Your task to perform on an android device: find snoozed emails in the gmail app Image 0: 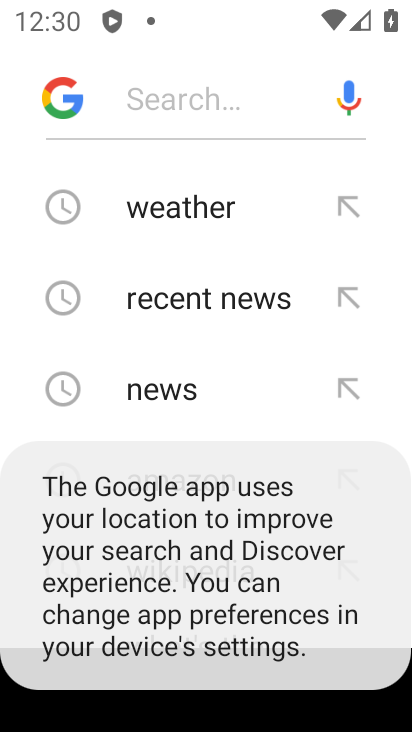
Step 0: press home button
Your task to perform on an android device: find snoozed emails in the gmail app Image 1: 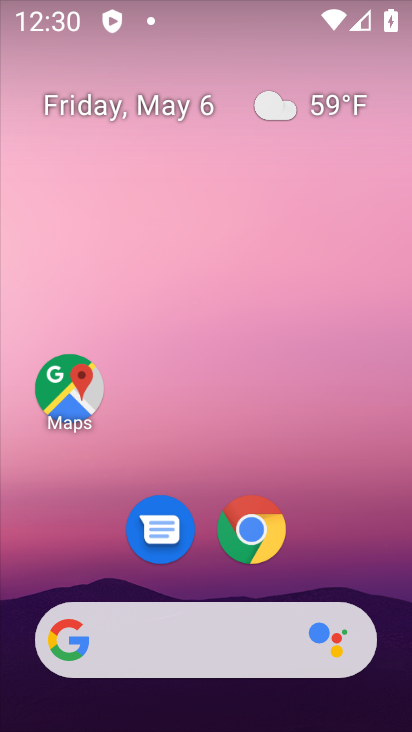
Step 1: press home button
Your task to perform on an android device: find snoozed emails in the gmail app Image 2: 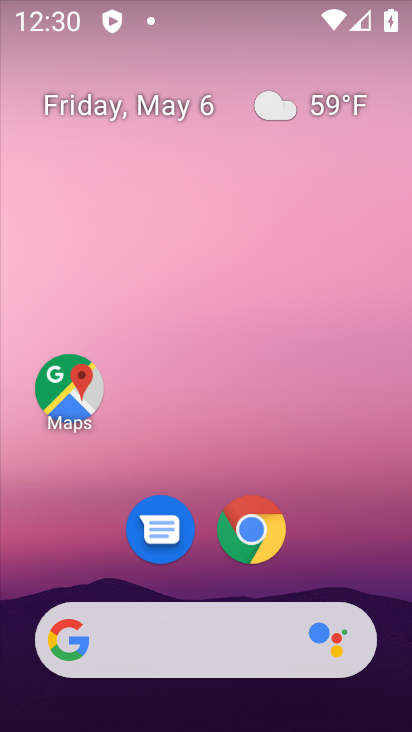
Step 2: drag from (329, 532) to (336, 196)
Your task to perform on an android device: find snoozed emails in the gmail app Image 3: 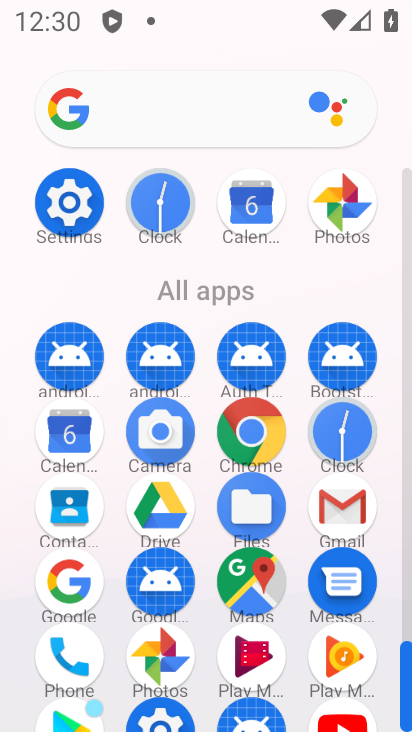
Step 3: click (345, 520)
Your task to perform on an android device: find snoozed emails in the gmail app Image 4: 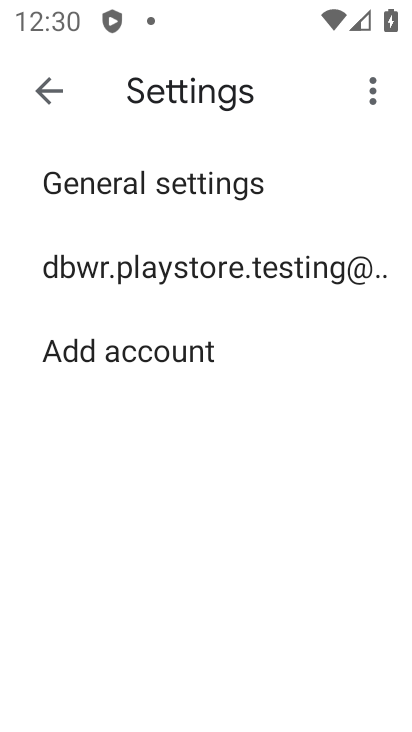
Step 4: click (214, 269)
Your task to perform on an android device: find snoozed emails in the gmail app Image 5: 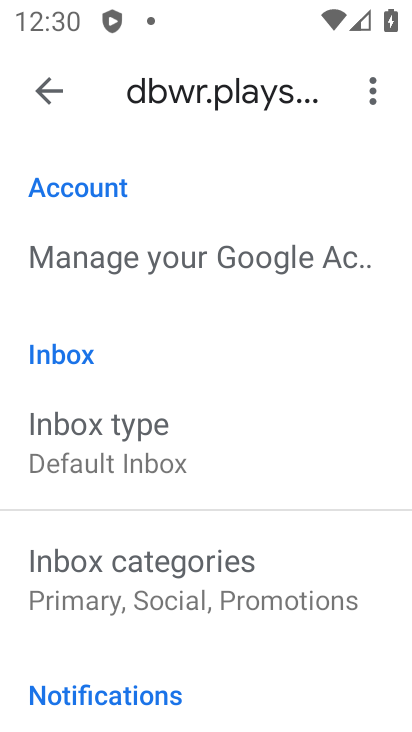
Step 5: drag from (258, 539) to (238, 283)
Your task to perform on an android device: find snoozed emails in the gmail app Image 6: 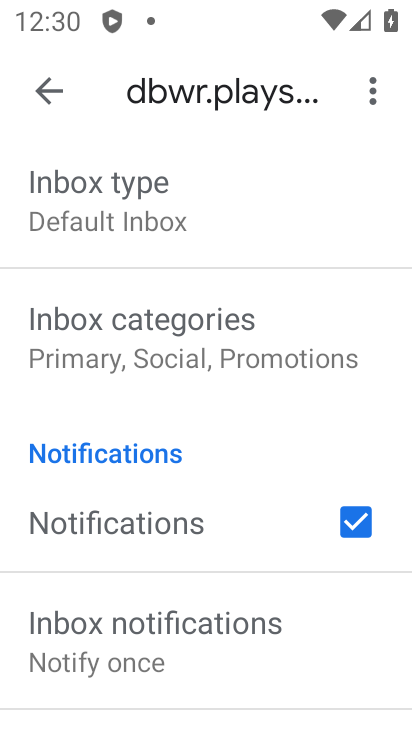
Step 6: click (54, 78)
Your task to perform on an android device: find snoozed emails in the gmail app Image 7: 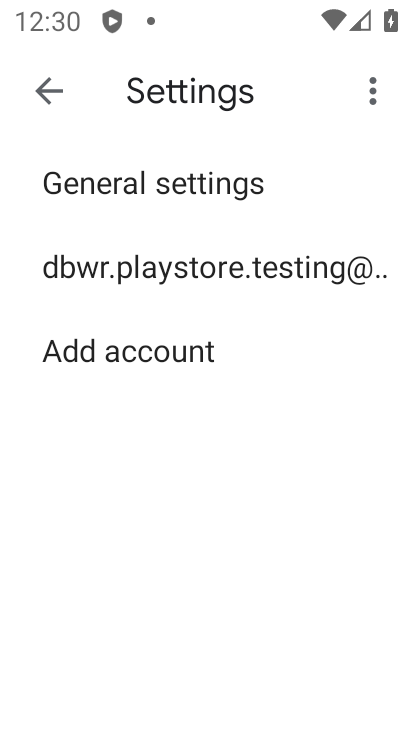
Step 7: click (54, 78)
Your task to perform on an android device: find snoozed emails in the gmail app Image 8: 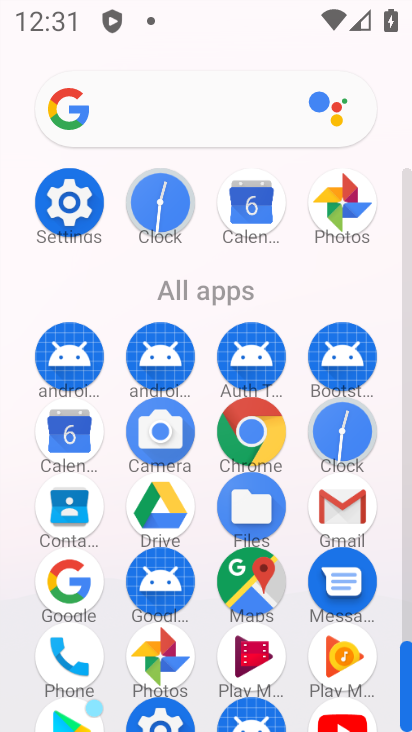
Step 8: click (332, 511)
Your task to perform on an android device: find snoozed emails in the gmail app Image 9: 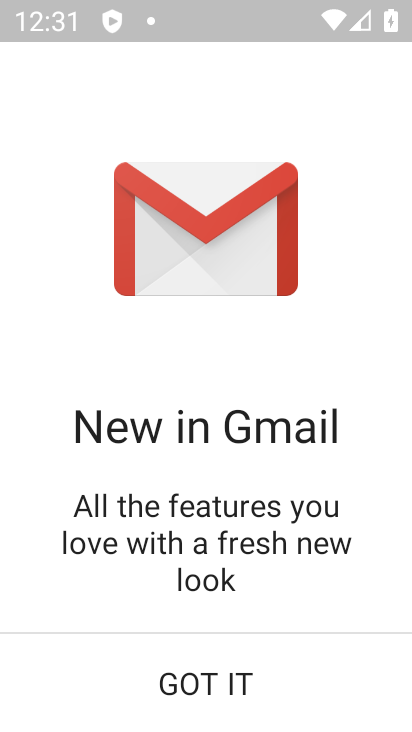
Step 9: click (191, 683)
Your task to perform on an android device: find snoozed emails in the gmail app Image 10: 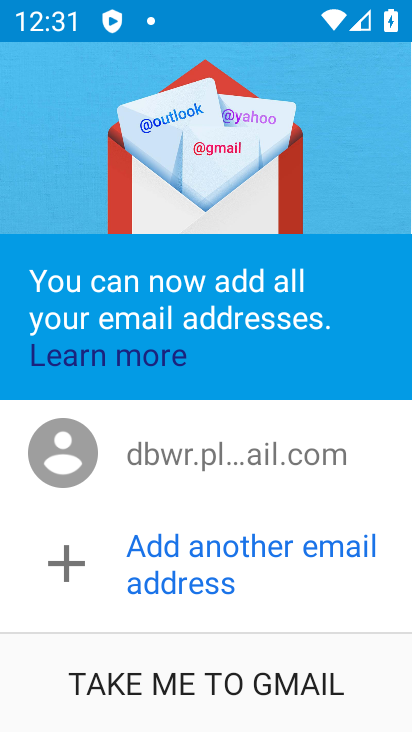
Step 10: click (210, 694)
Your task to perform on an android device: find snoozed emails in the gmail app Image 11: 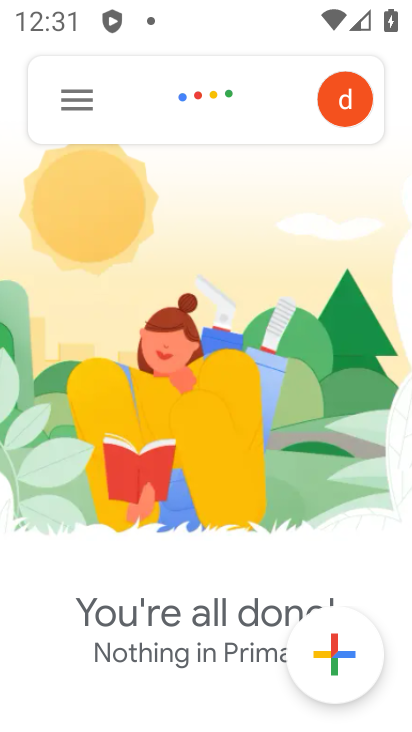
Step 11: click (72, 127)
Your task to perform on an android device: find snoozed emails in the gmail app Image 12: 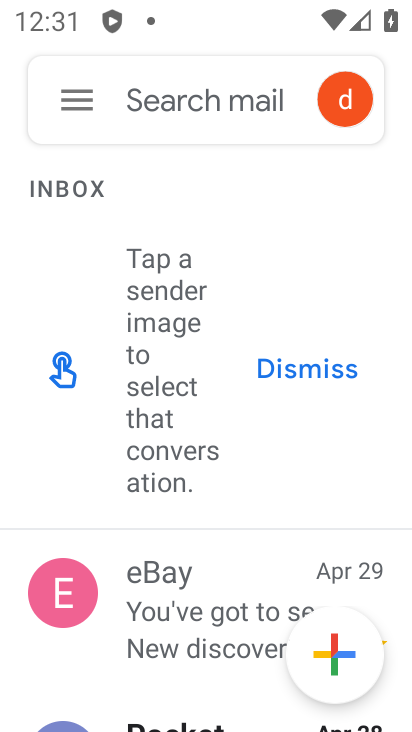
Step 12: drag from (234, 538) to (238, 203)
Your task to perform on an android device: find snoozed emails in the gmail app Image 13: 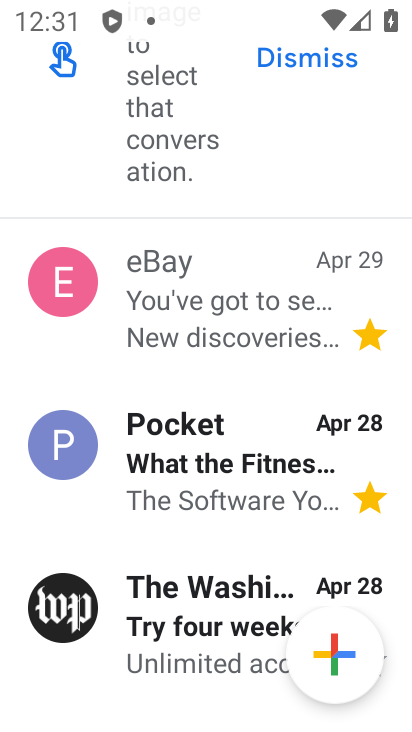
Step 13: drag from (189, 173) to (202, 339)
Your task to perform on an android device: find snoozed emails in the gmail app Image 14: 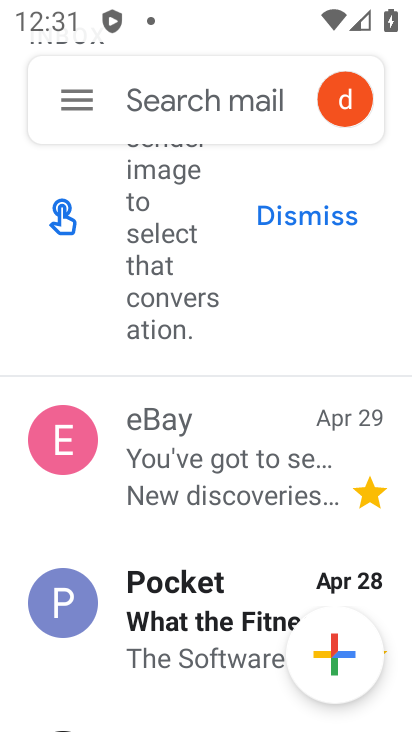
Step 14: click (79, 117)
Your task to perform on an android device: find snoozed emails in the gmail app Image 15: 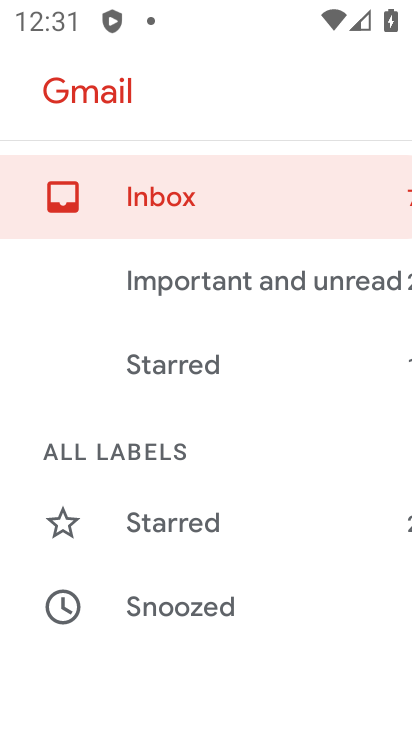
Step 15: click (185, 613)
Your task to perform on an android device: find snoozed emails in the gmail app Image 16: 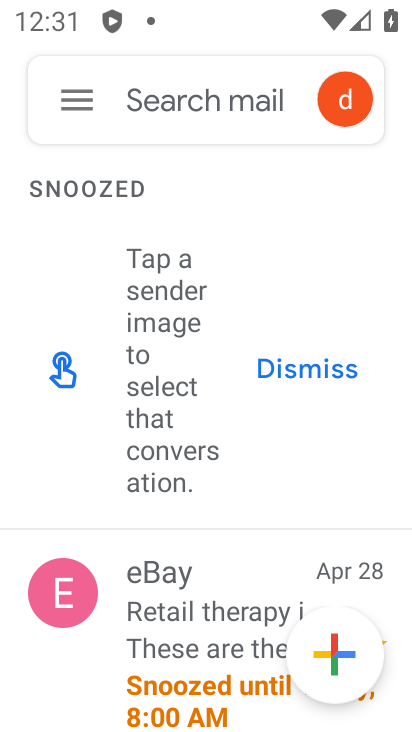
Step 16: task complete